Your task to perform on an android device: change timer sound Image 0: 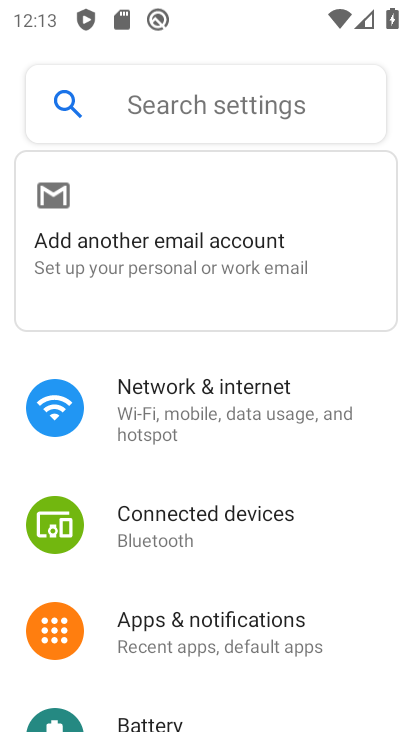
Step 0: press home button
Your task to perform on an android device: change timer sound Image 1: 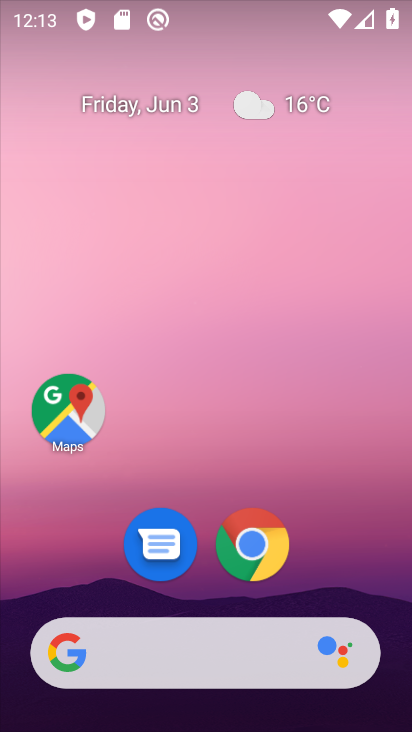
Step 1: drag from (321, 525) to (318, 85)
Your task to perform on an android device: change timer sound Image 2: 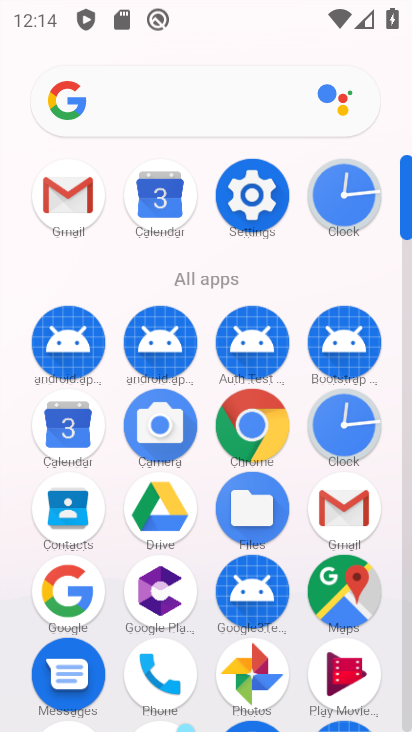
Step 2: click (353, 423)
Your task to perform on an android device: change timer sound Image 3: 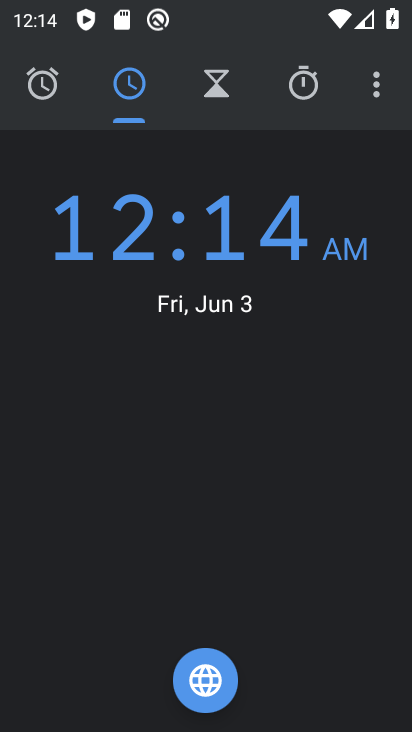
Step 3: click (387, 95)
Your task to perform on an android device: change timer sound Image 4: 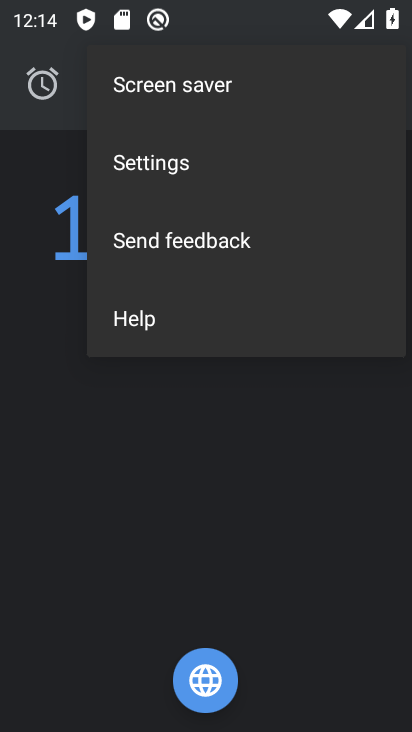
Step 4: click (225, 171)
Your task to perform on an android device: change timer sound Image 5: 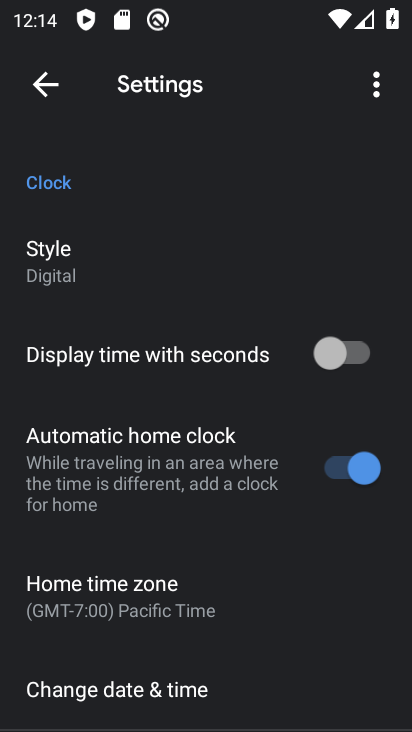
Step 5: drag from (251, 284) to (261, 221)
Your task to perform on an android device: change timer sound Image 6: 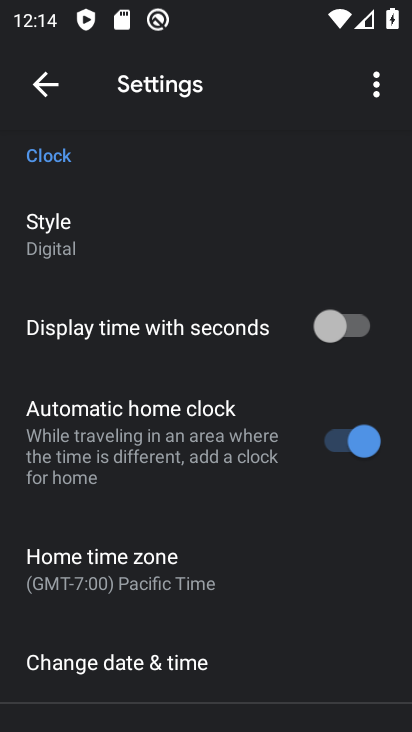
Step 6: drag from (289, 673) to (281, 200)
Your task to perform on an android device: change timer sound Image 7: 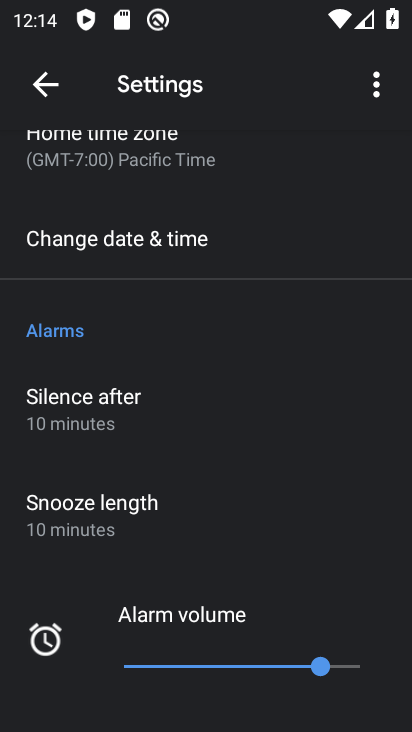
Step 7: drag from (226, 607) to (269, 202)
Your task to perform on an android device: change timer sound Image 8: 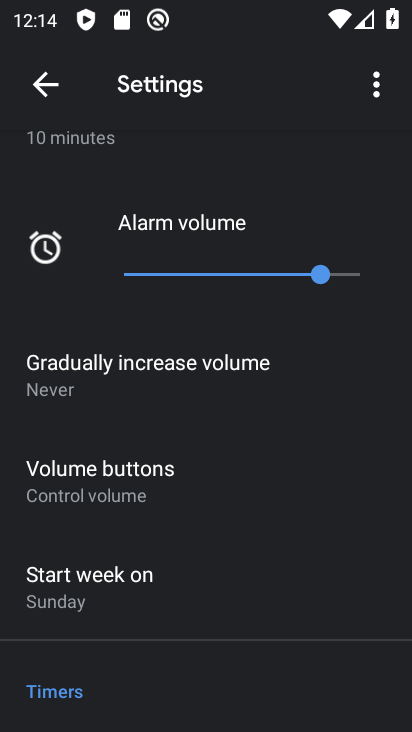
Step 8: drag from (257, 671) to (310, 387)
Your task to perform on an android device: change timer sound Image 9: 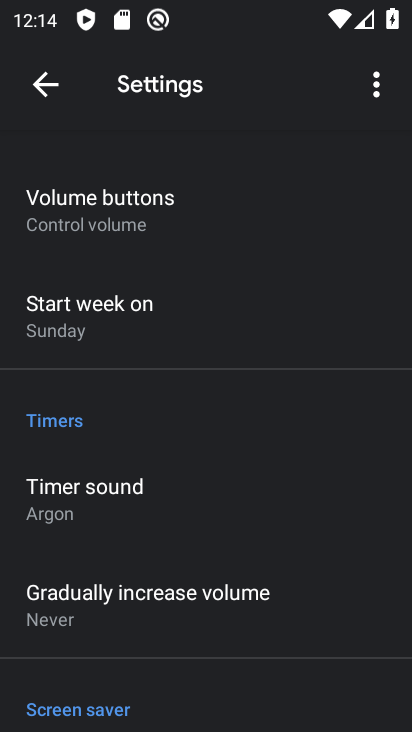
Step 9: click (176, 505)
Your task to perform on an android device: change timer sound Image 10: 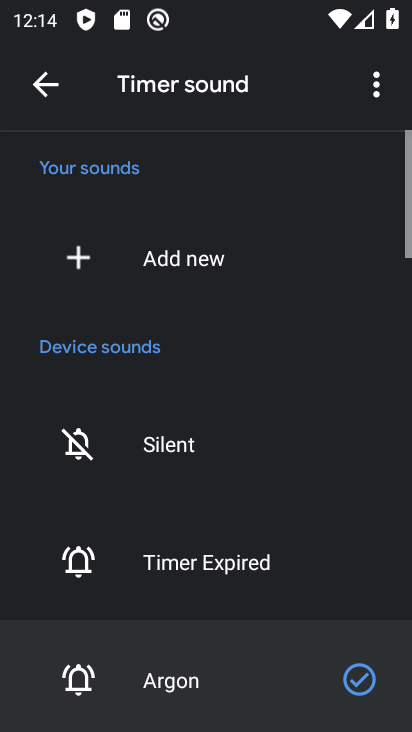
Step 10: drag from (171, 664) to (238, 415)
Your task to perform on an android device: change timer sound Image 11: 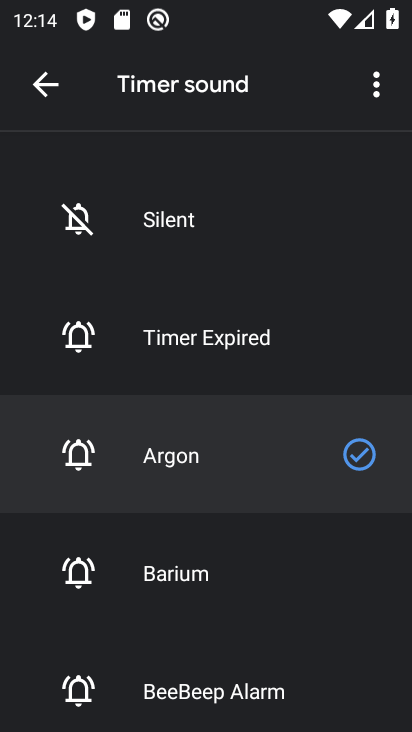
Step 11: click (213, 578)
Your task to perform on an android device: change timer sound Image 12: 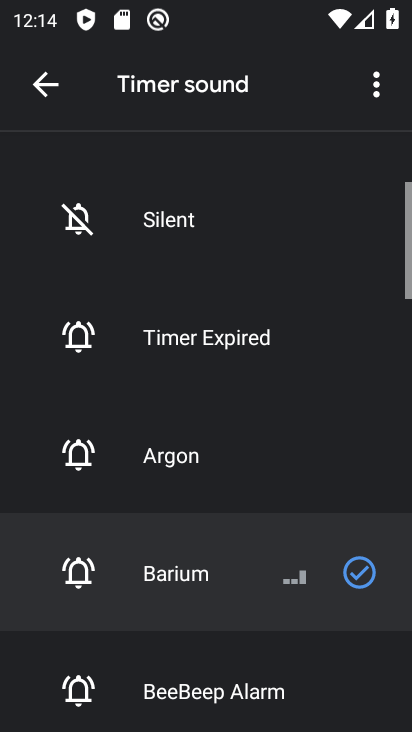
Step 12: task complete